Your task to perform on an android device: Open Maps and search for coffee Image 0: 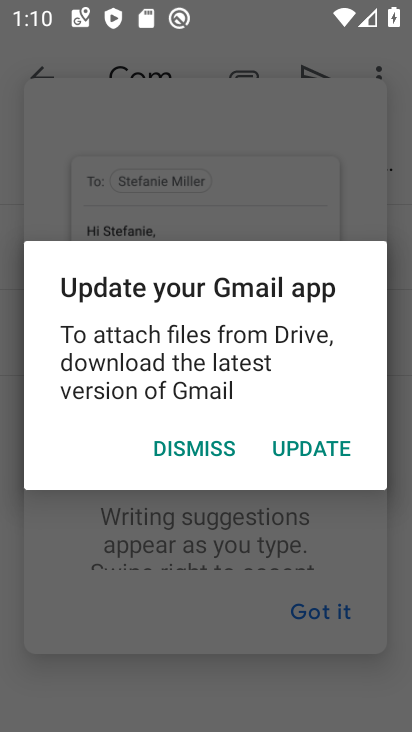
Step 0: press back button
Your task to perform on an android device: Open Maps and search for coffee Image 1: 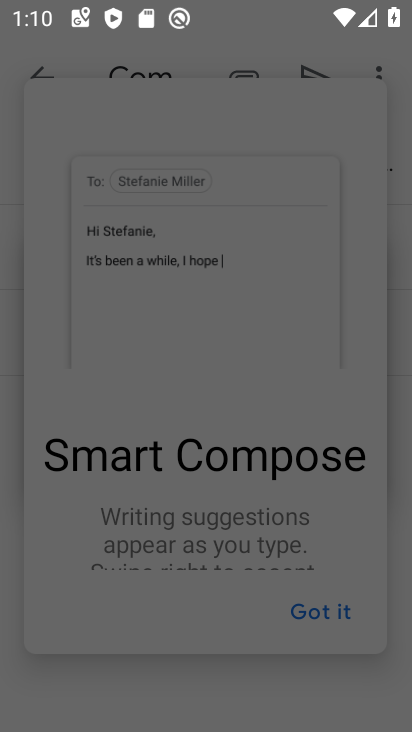
Step 1: press home button
Your task to perform on an android device: Open Maps and search for coffee Image 2: 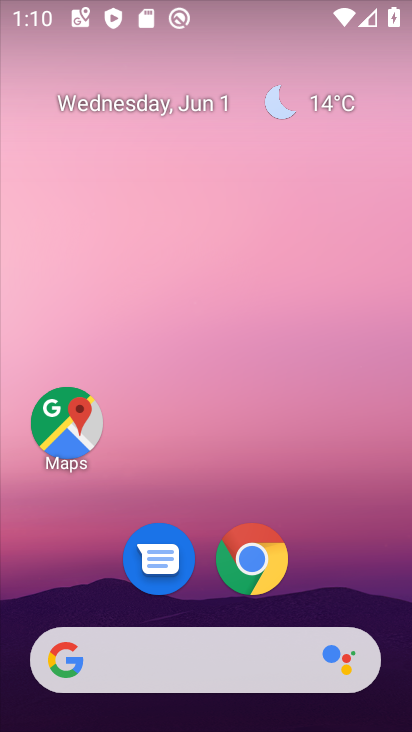
Step 2: click (64, 420)
Your task to perform on an android device: Open Maps and search for coffee Image 3: 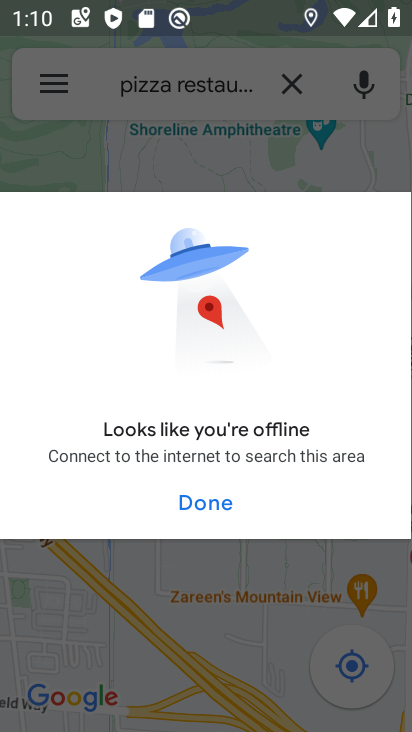
Step 3: click (227, 501)
Your task to perform on an android device: Open Maps and search for coffee Image 4: 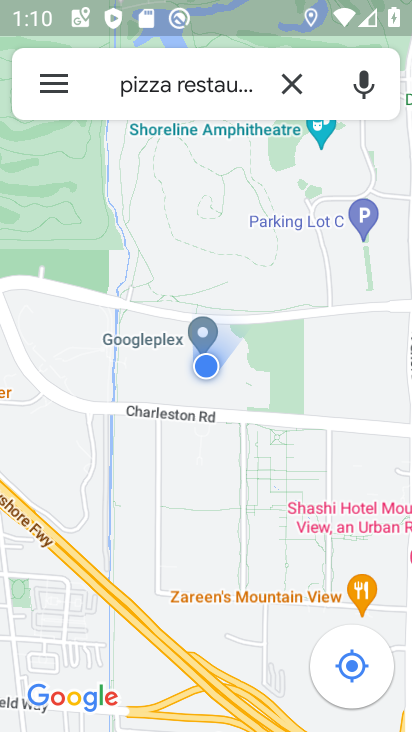
Step 4: click (295, 82)
Your task to perform on an android device: Open Maps and search for coffee Image 5: 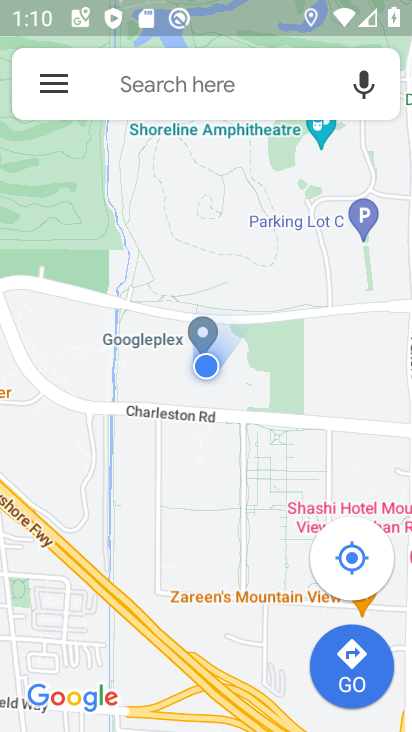
Step 5: click (129, 83)
Your task to perform on an android device: Open Maps and search for coffee Image 6: 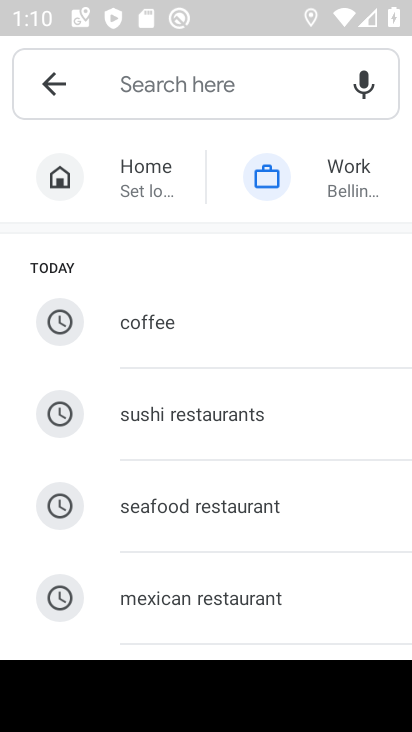
Step 6: type "coffee"
Your task to perform on an android device: Open Maps and search for coffee Image 7: 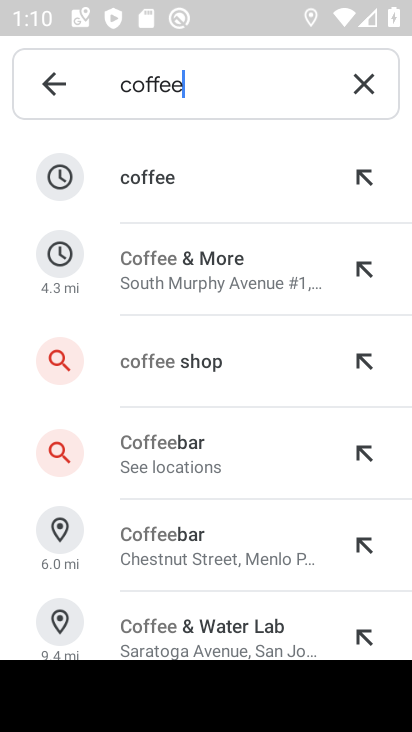
Step 7: click (135, 170)
Your task to perform on an android device: Open Maps and search for coffee Image 8: 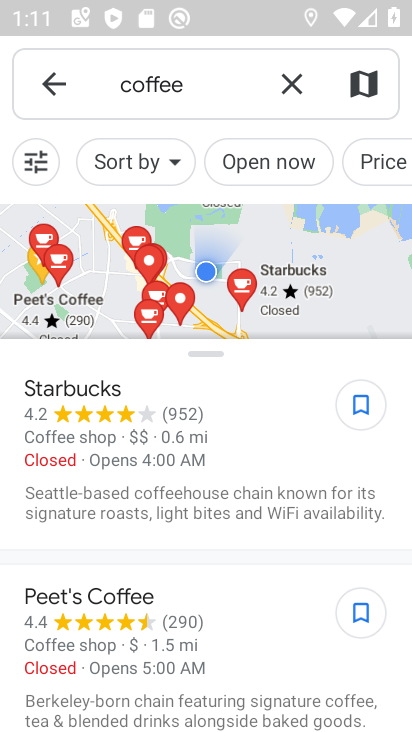
Step 8: task complete